Your task to perform on an android device: What's on my calendar tomorrow? Image 0: 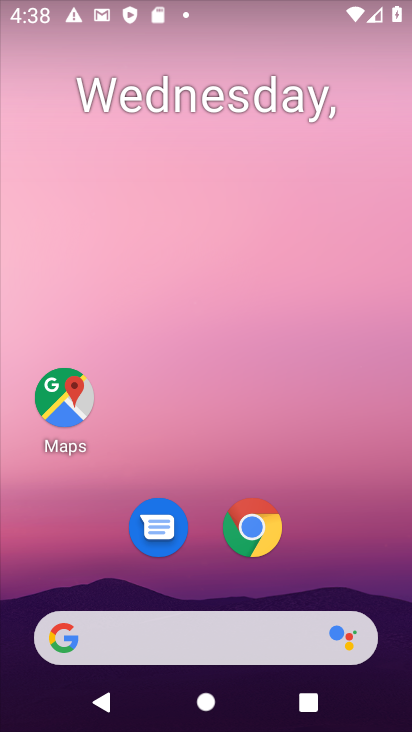
Step 0: drag from (191, 633) to (136, 243)
Your task to perform on an android device: What's on my calendar tomorrow? Image 1: 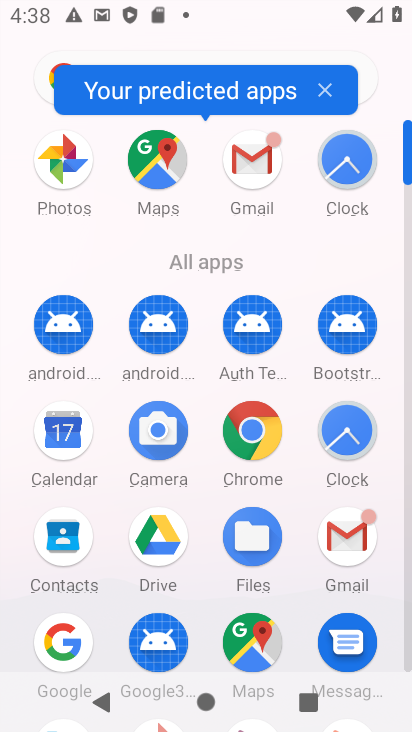
Step 1: click (46, 436)
Your task to perform on an android device: What's on my calendar tomorrow? Image 2: 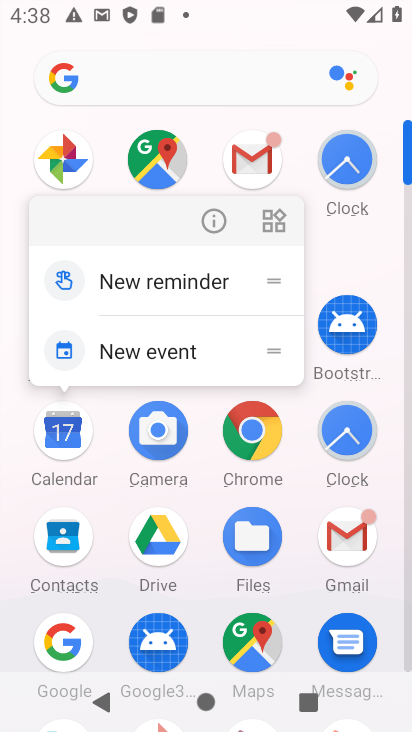
Step 2: click (55, 457)
Your task to perform on an android device: What's on my calendar tomorrow? Image 3: 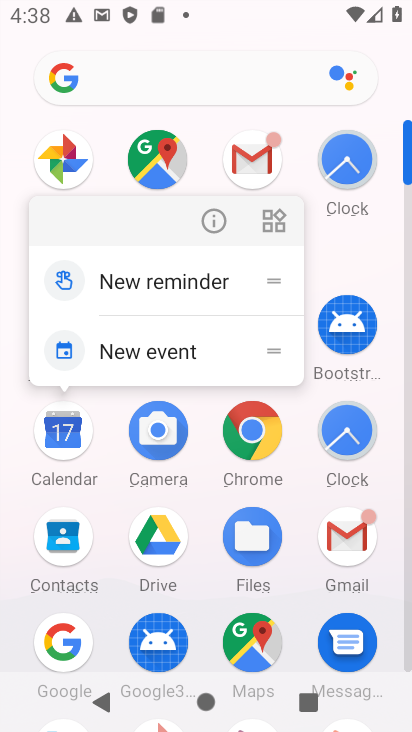
Step 3: click (52, 446)
Your task to perform on an android device: What's on my calendar tomorrow? Image 4: 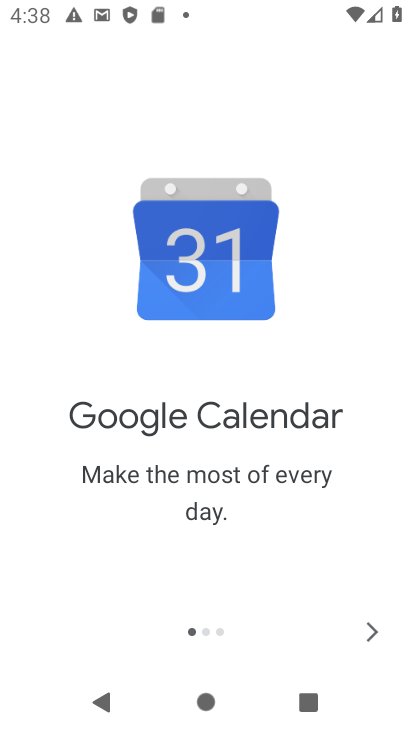
Step 4: click (365, 637)
Your task to perform on an android device: What's on my calendar tomorrow? Image 5: 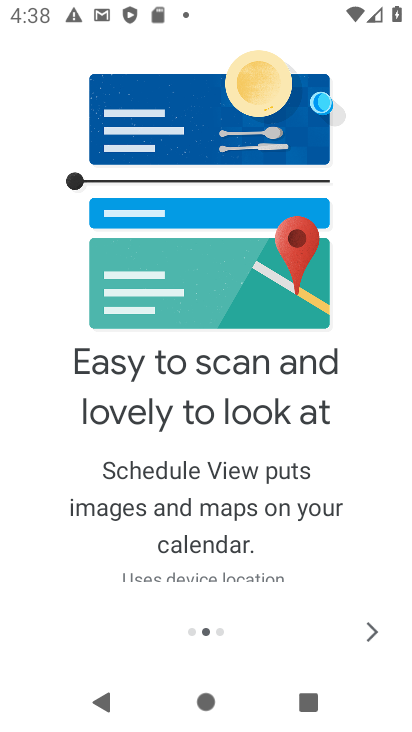
Step 5: click (365, 637)
Your task to perform on an android device: What's on my calendar tomorrow? Image 6: 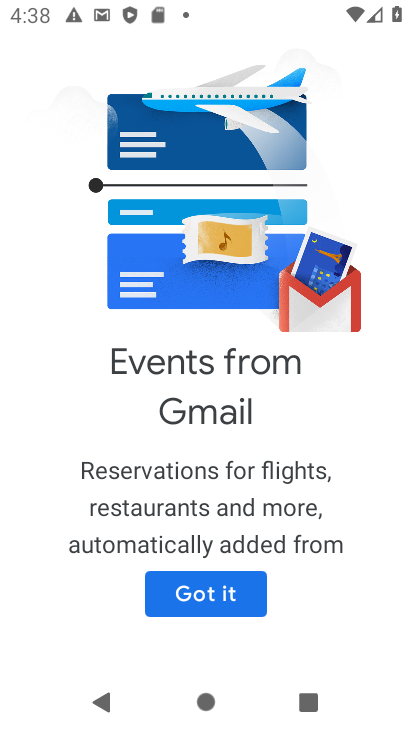
Step 6: click (215, 614)
Your task to perform on an android device: What's on my calendar tomorrow? Image 7: 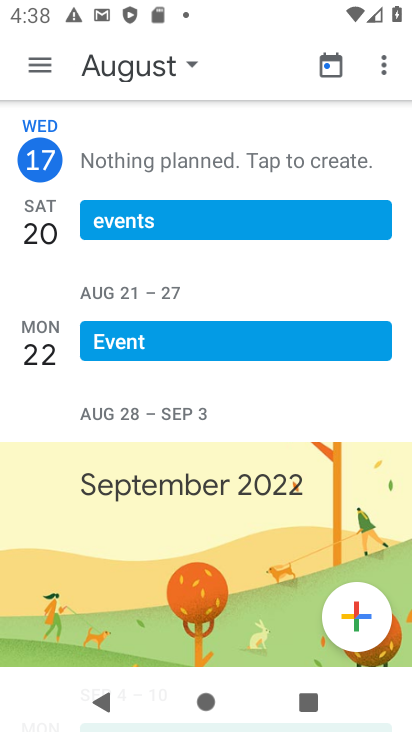
Step 7: click (131, 63)
Your task to perform on an android device: What's on my calendar tomorrow? Image 8: 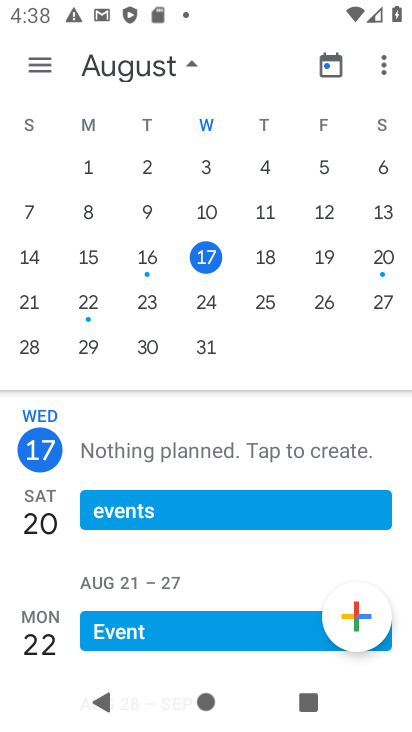
Step 8: click (265, 257)
Your task to perform on an android device: What's on my calendar tomorrow? Image 9: 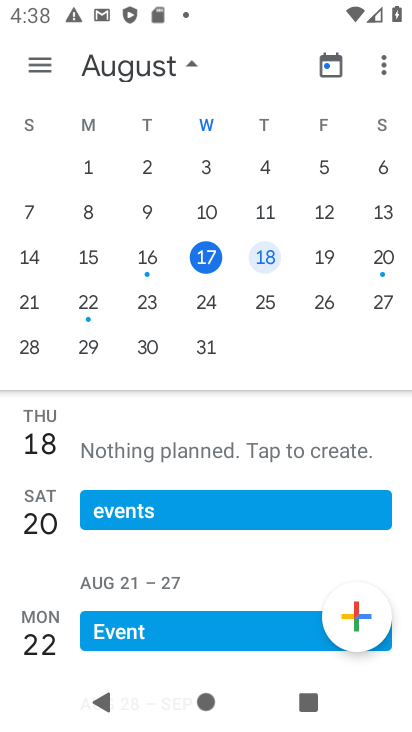
Step 9: task complete